Your task to perform on an android device: make emails show in primary in the gmail app Image 0: 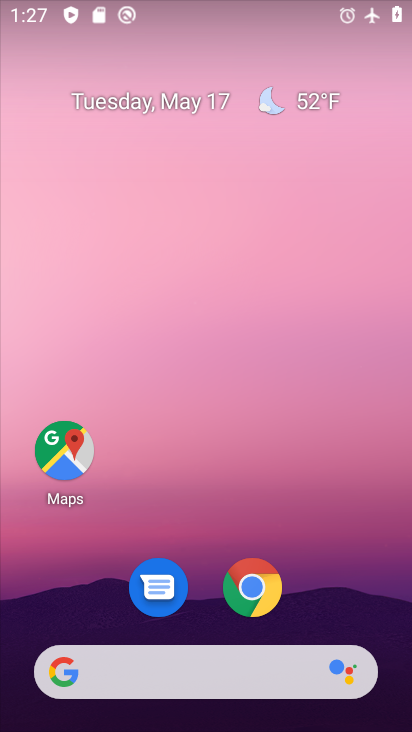
Step 0: drag from (365, 577) to (275, 36)
Your task to perform on an android device: make emails show in primary in the gmail app Image 1: 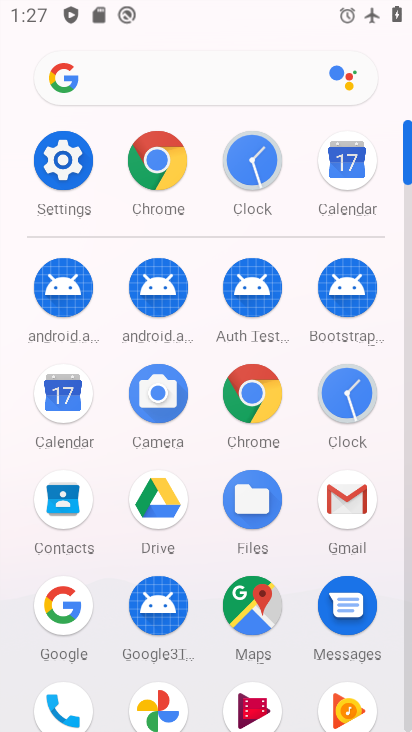
Step 1: click (344, 512)
Your task to perform on an android device: make emails show in primary in the gmail app Image 2: 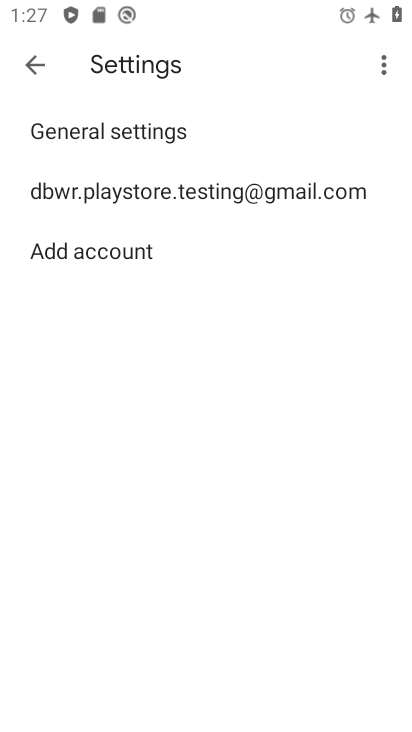
Step 2: click (28, 74)
Your task to perform on an android device: make emails show in primary in the gmail app Image 3: 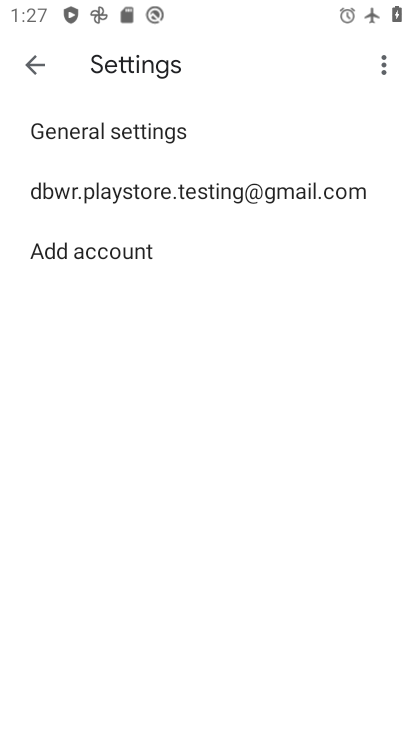
Step 3: click (32, 58)
Your task to perform on an android device: make emails show in primary in the gmail app Image 4: 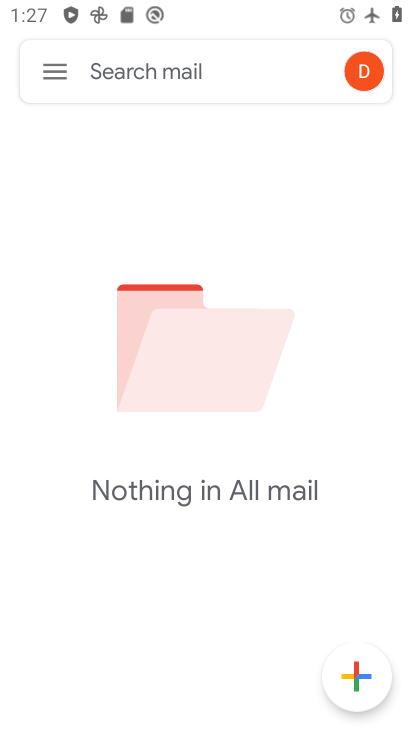
Step 4: click (67, 72)
Your task to perform on an android device: make emails show in primary in the gmail app Image 5: 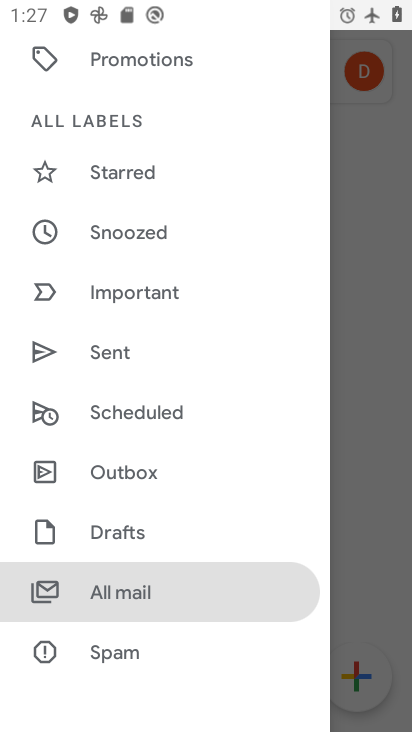
Step 5: drag from (122, 199) to (231, 591)
Your task to perform on an android device: make emails show in primary in the gmail app Image 6: 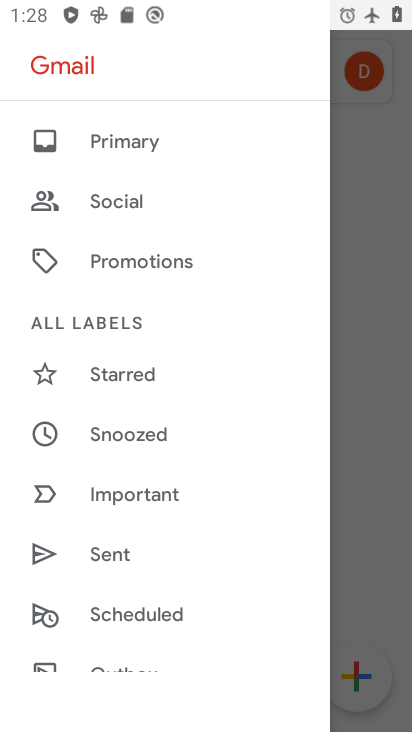
Step 6: click (169, 134)
Your task to perform on an android device: make emails show in primary in the gmail app Image 7: 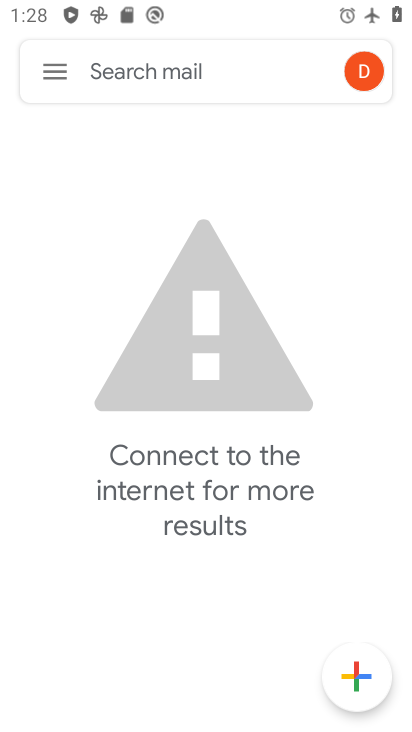
Step 7: task complete